Your task to perform on an android device: turn on wifi Image 0: 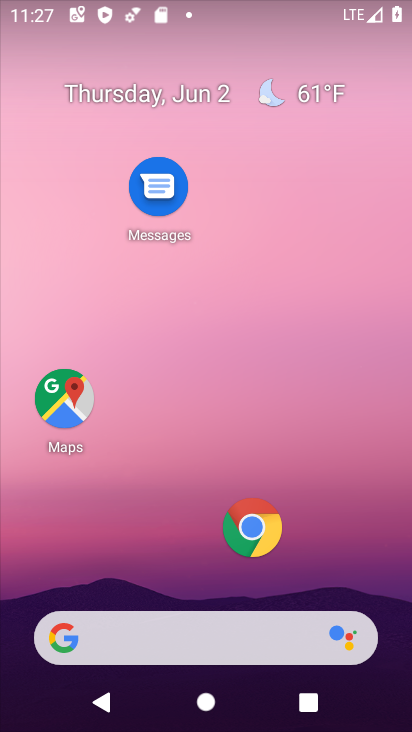
Step 0: press home button
Your task to perform on an android device: turn on wifi Image 1: 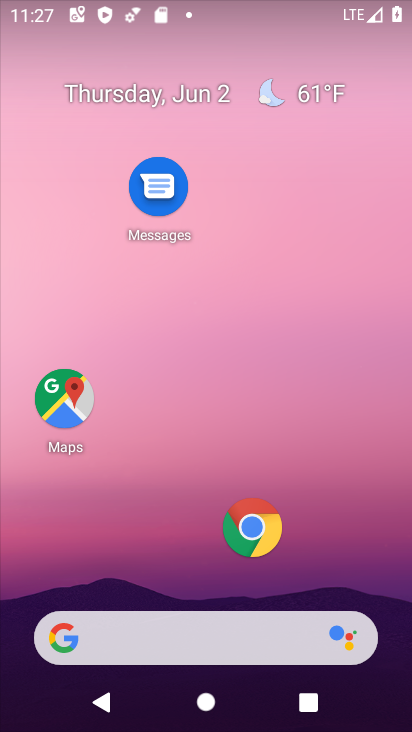
Step 1: drag from (197, 4) to (230, 565)
Your task to perform on an android device: turn on wifi Image 2: 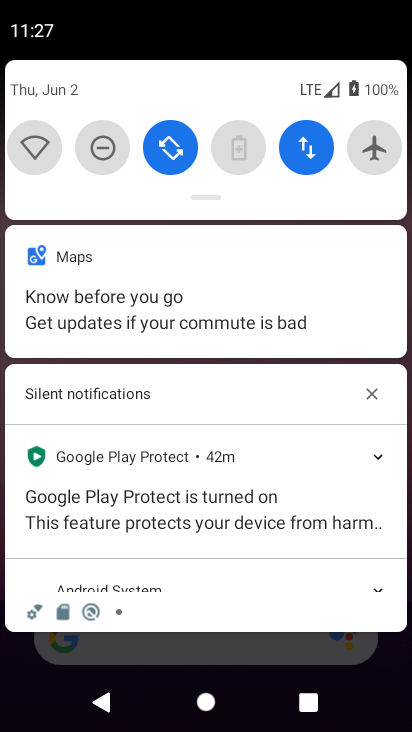
Step 2: click (37, 144)
Your task to perform on an android device: turn on wifi Image 3: 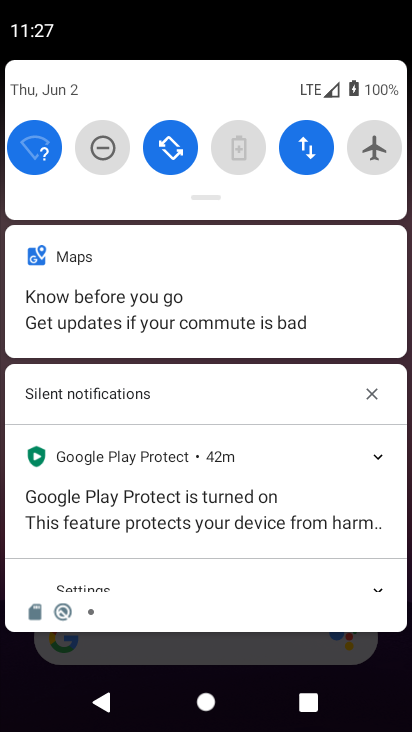
Step 3: task complete